Your task to perform on an android device: change notifications settings Image 0: 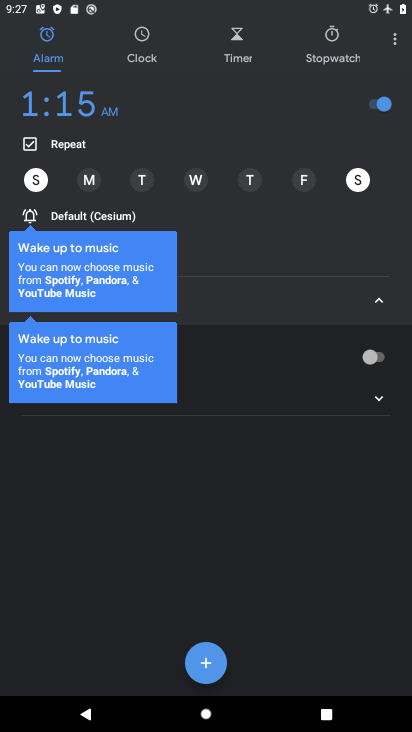
Step 0: press home button
Your task to perform on an android device: change notifications settings Image 1: 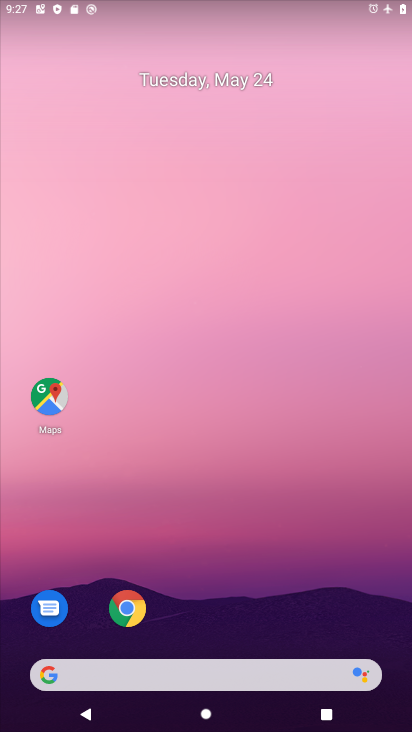
Step 1: drag from (176, 626) to (267, 131)
Your task to perform on an android device: change notifications settings Image 2: 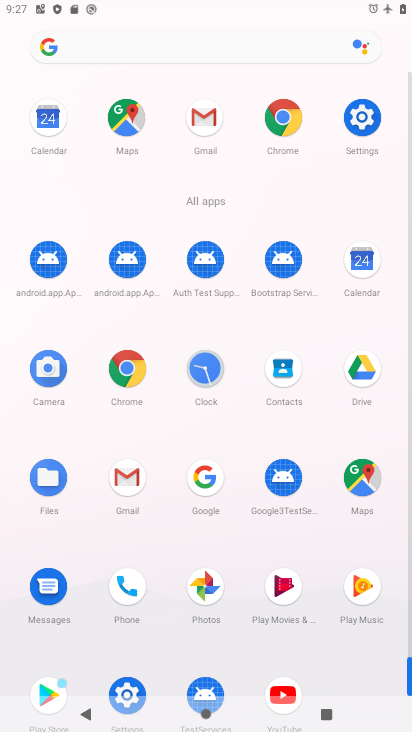
Step 2: click (370, 128)
Your task to perform on an android device: change notifications settings Image 3: 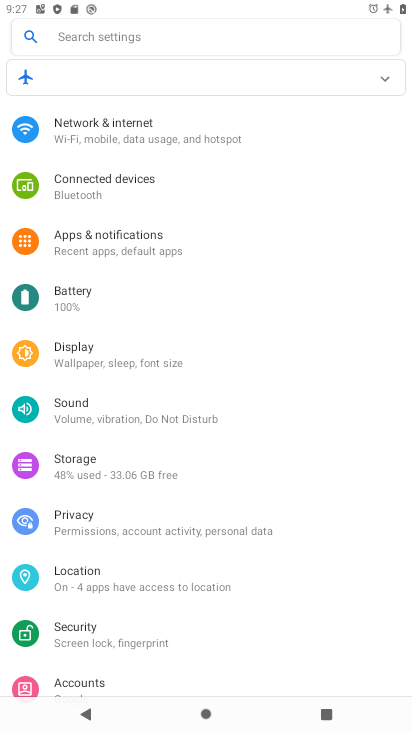
Step 3: click (161, 246)
Your task to perform on an android device: change notifications settings Image 4: 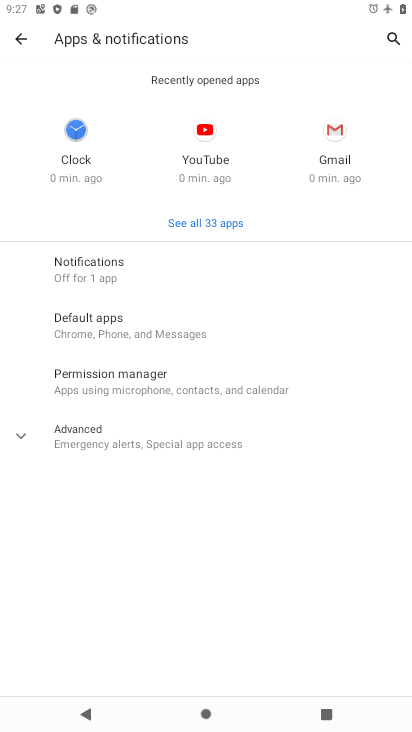
Step 4: click (136, 268)
Your task to perform on an android device: change notifications settings Image 5: 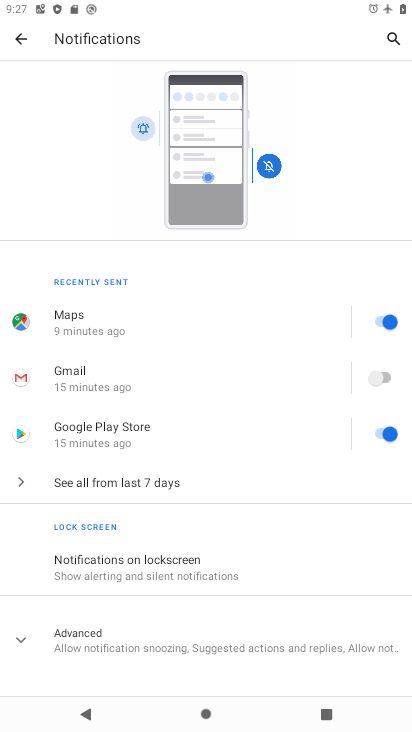
Step 5: click (126, 484)
Your task to perform on an android device: change notifications settings Image 6: 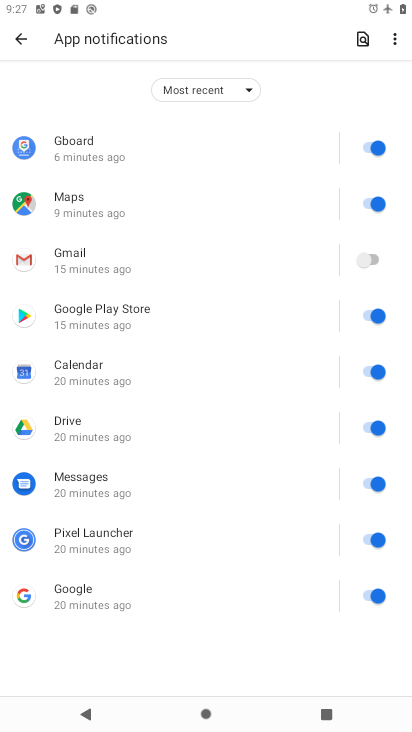
Step 6: click (358, 141)
Your task to perform on an android device: change notifications settings Image 7: 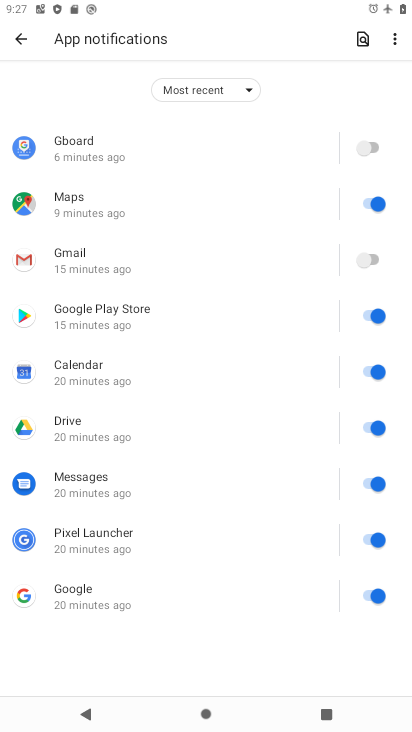
Step 7: click (367, 208)
Your task to perform on an android device: change notifications settings Image 8: 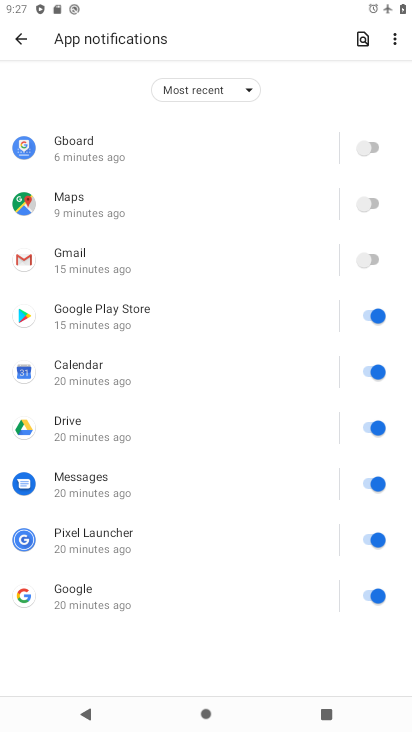
Step 8: click (358, 317)
Your task to perform on an android device: change notifications settings Image 9: 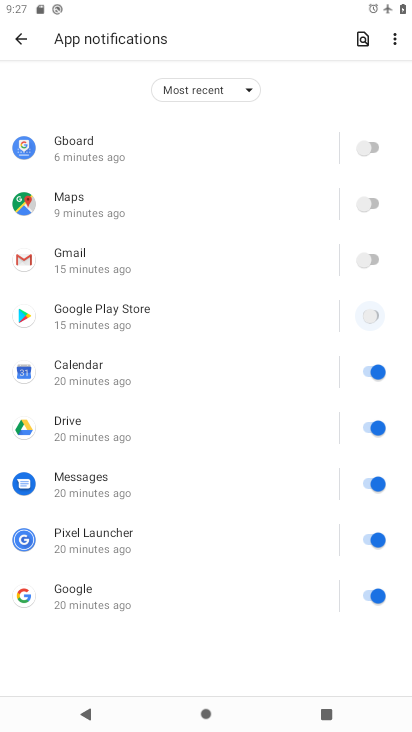
Step 9: click (369, 368)
Your task to perform on an android device: change notifications settings Image 10: 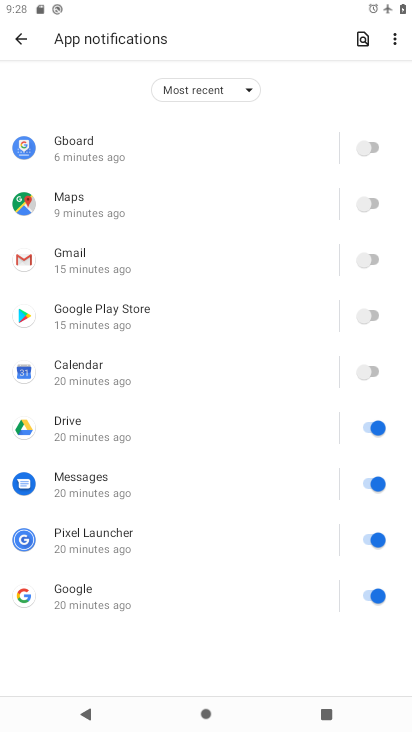
Step 10: click (363, 424)
Your task to perform on an android device: change notifications settings Image 11: 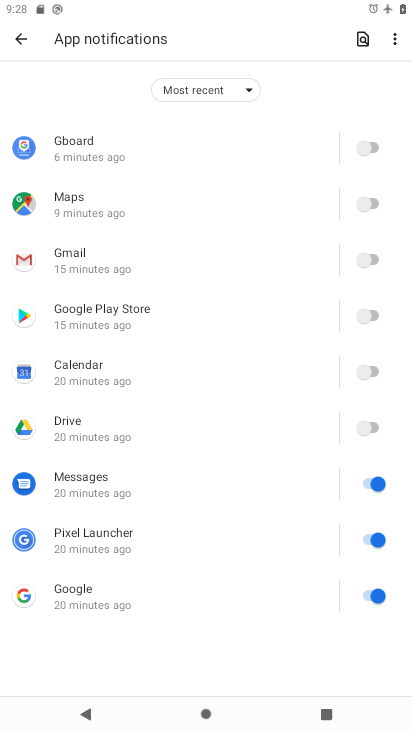
Step 11: click (364, 495)
Your task to perform on an android device: change notifications settings Image 12: 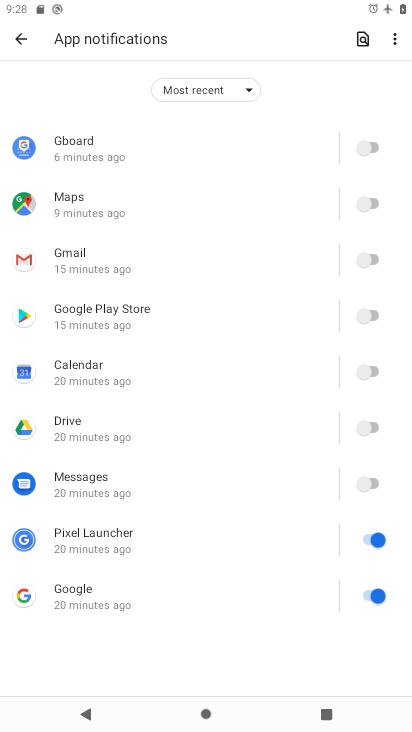
Step 12: click (376, 539)
Your task to perform on an android device: change notifications settings Image 13: 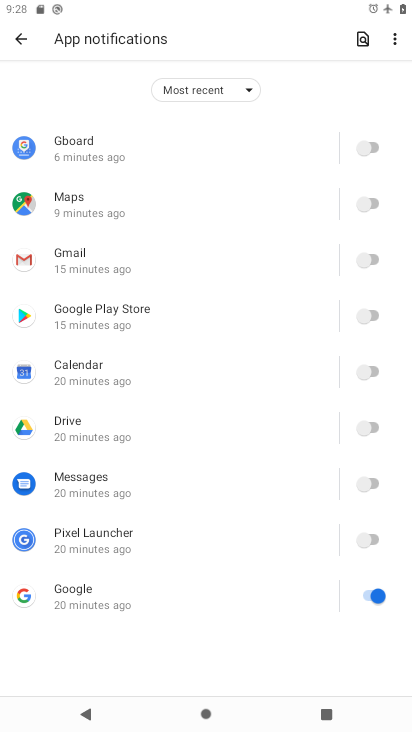
Step 13: click (362, 609)
Your task to perform on an android device: change notifications settings Image 14: 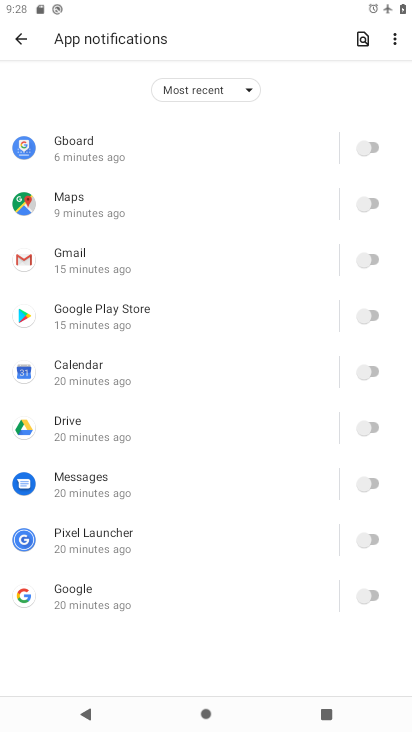
Step 14: task complete